Your task to perform on an android device: turn notification dots on Image 0: 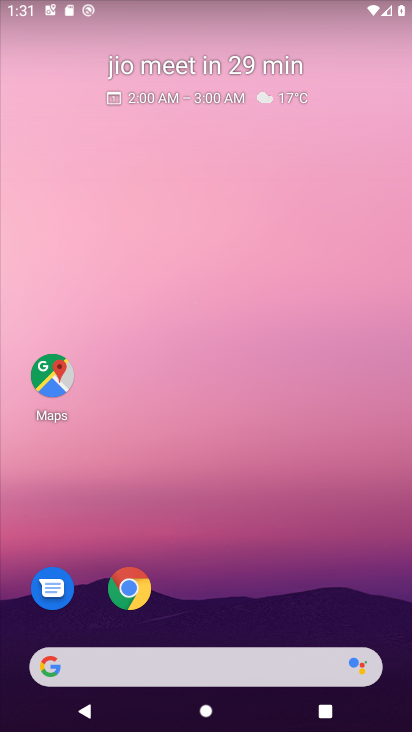
Step 0: drag from (262, 563) to (337, 50)
Your task to perform on an android device: turn notification dots on Image 1: 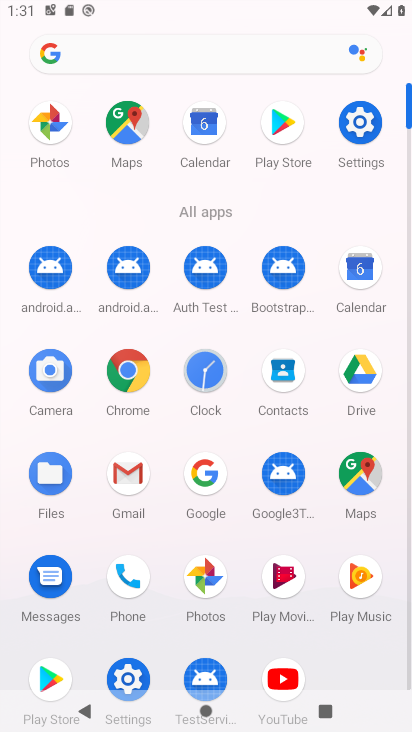
Step 1: click (365, 114)
Your task to perform on an android device: turn notification dots on Image 2: 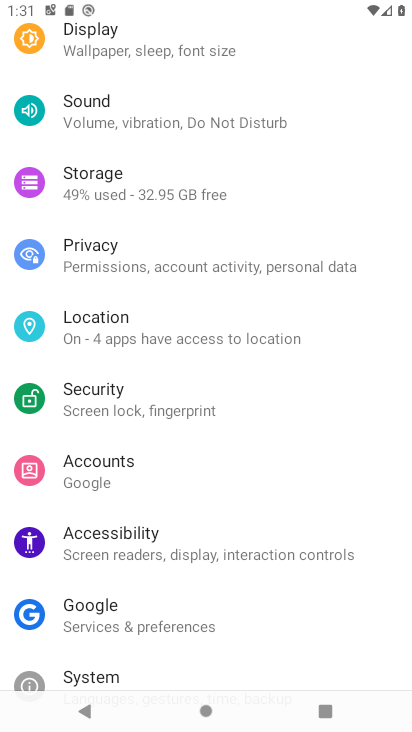
Step 2: drag from (293, 140) to (215, 652)
Your task to perform on an android device: turn notification dots on Image 3: 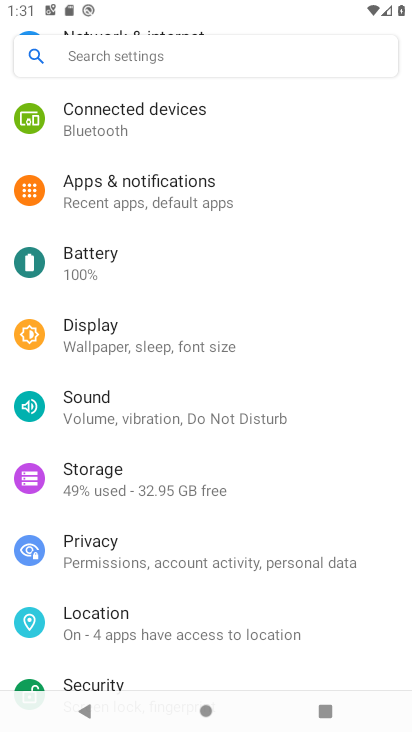
Step 3: click (230, 183)
Your task to perform on an android device: turn notification dots on Image 4: 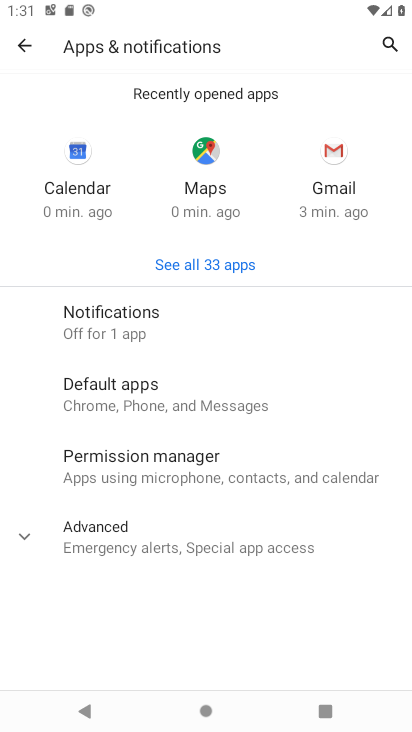
Step 4: click (192, 303)
Your task to perform on an android device: turn notification dots on Image 5: 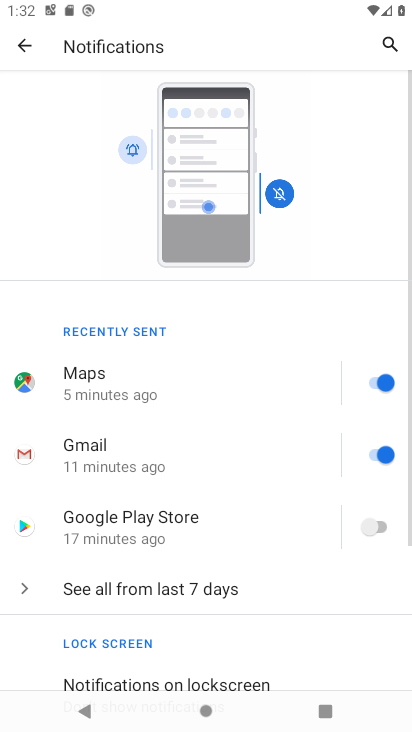
Step 5: drag from (274, 618) to (309, 47)
Your task to perform on an android device: turn notification dots on Image 6: 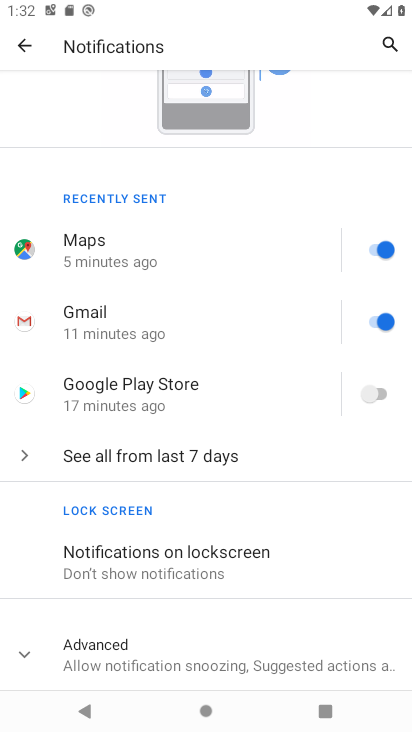
Step 6: click (286, 654)
Your task to perform on an android device: turn notification dots on Image 7: 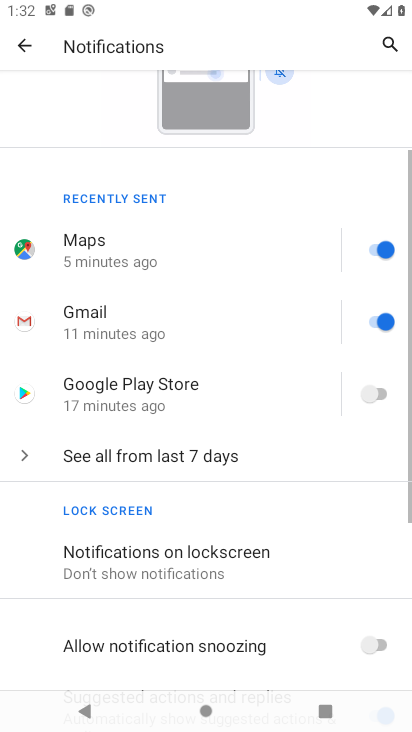
Step 7: task complete